Your task to perform on an android device: Go to notification settings Image 0: 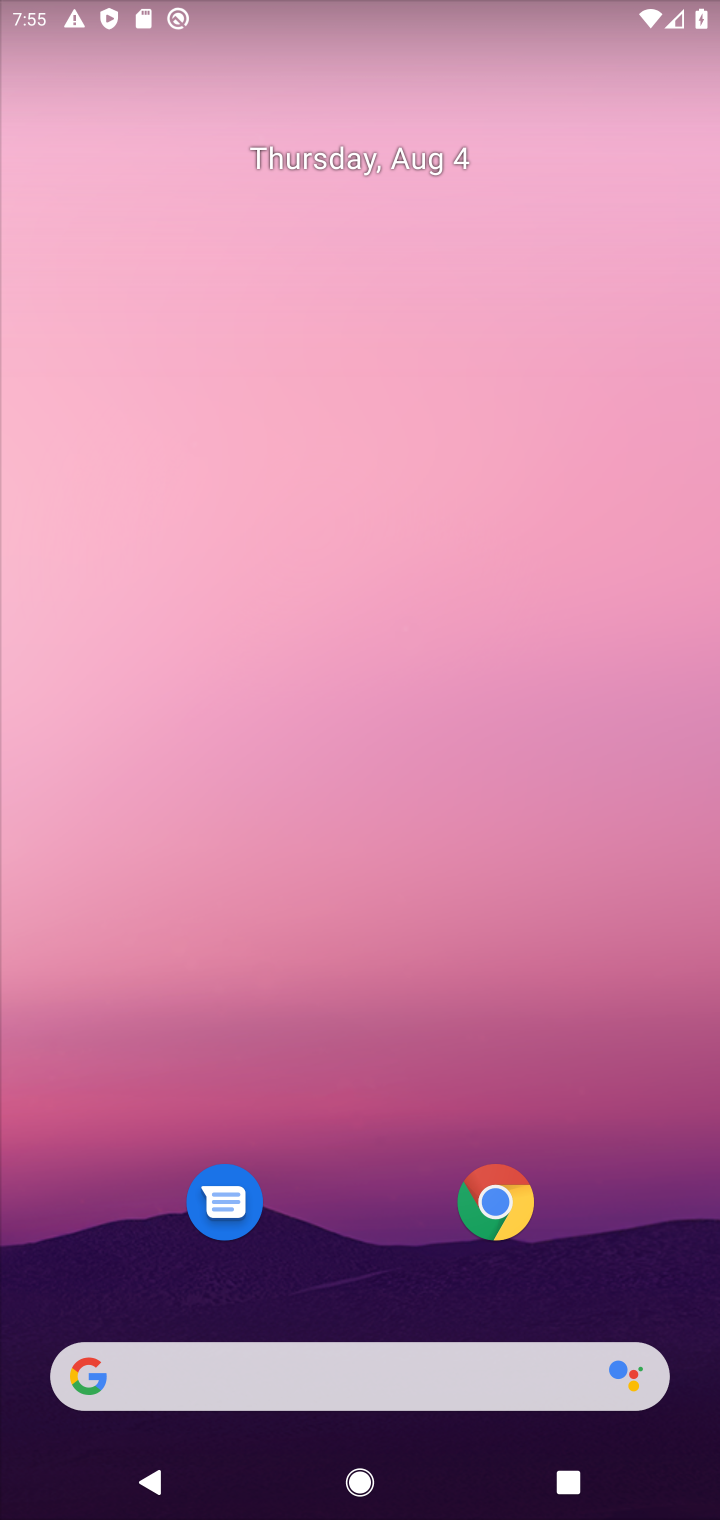
Step 0: drag from (327, 1281) to (335, 400)
Your task to perform on an android device: Go to notification settings Image 1: 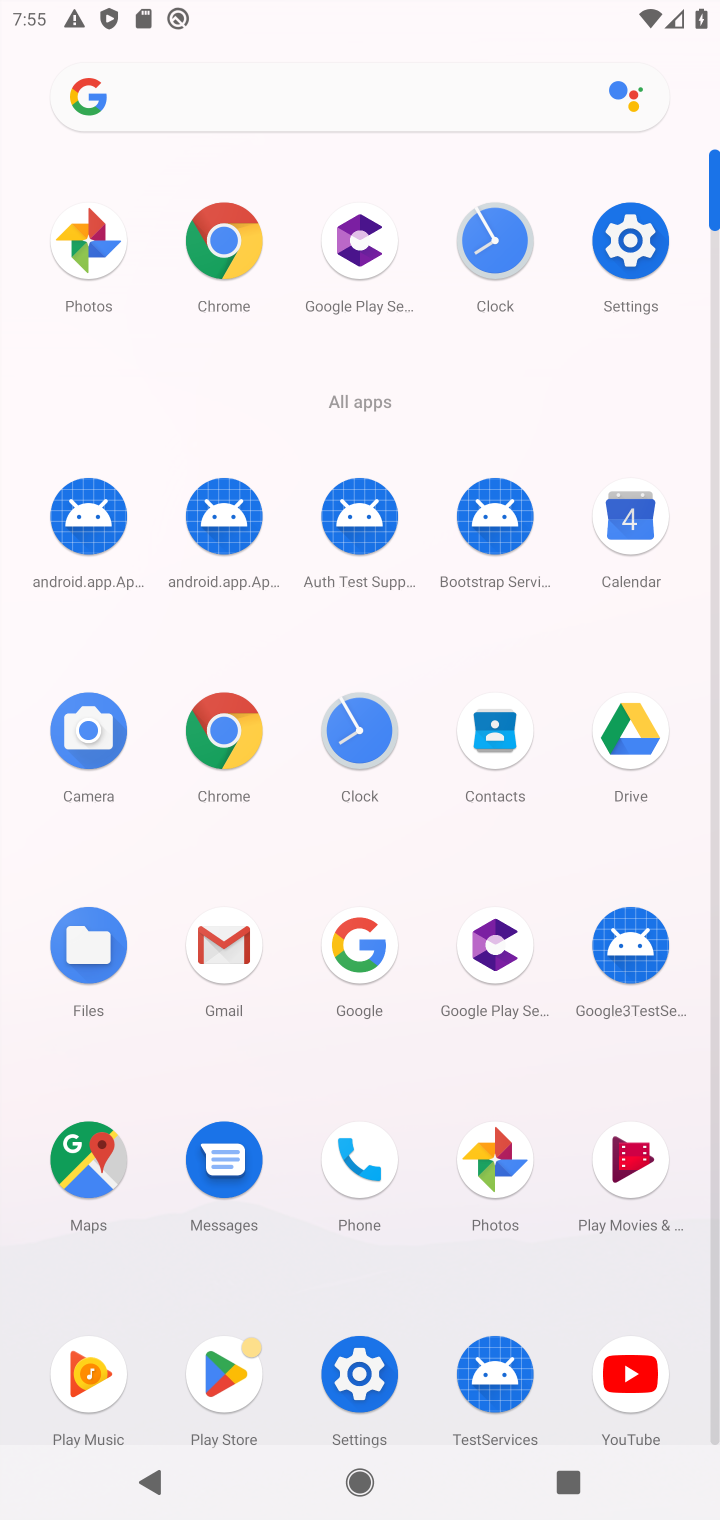
Step 1: click (616, 267)
Your task to perform on an android device: Go to notification settings Image 2: 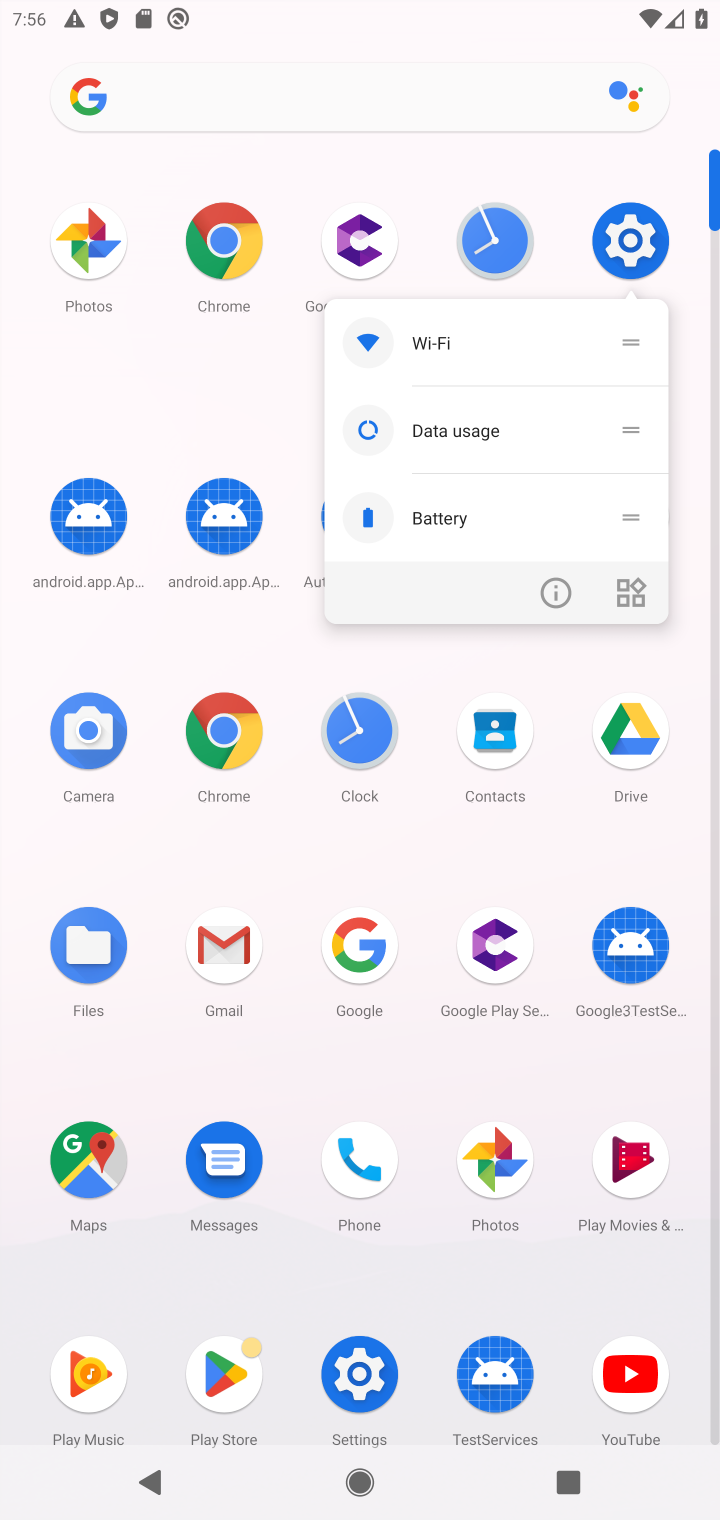
Step 2: click (633, 245)
Your task to perform on an android device: Go to notification settings Image 3: 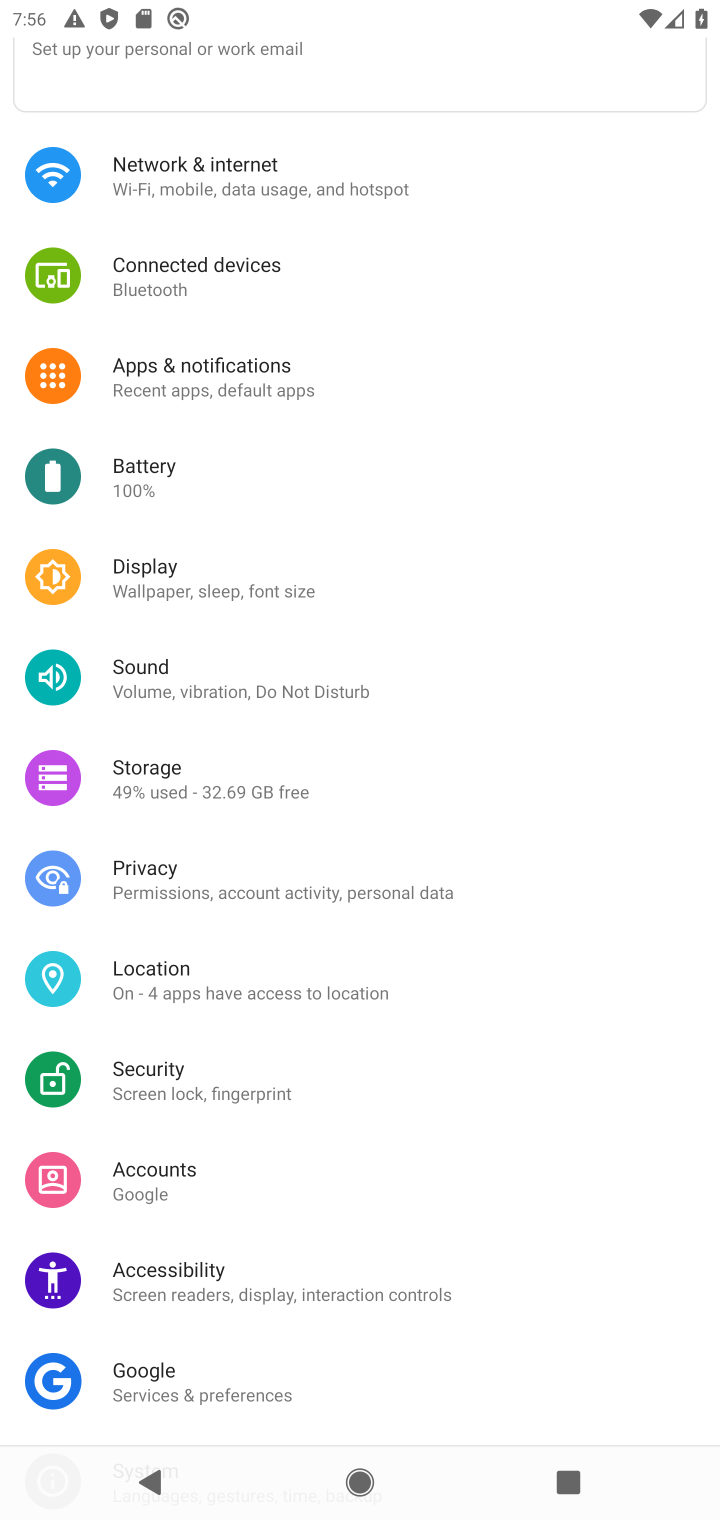
Step 3: click (277, 358)
Your task to perform on an android device: Go to notification settings Image 4: 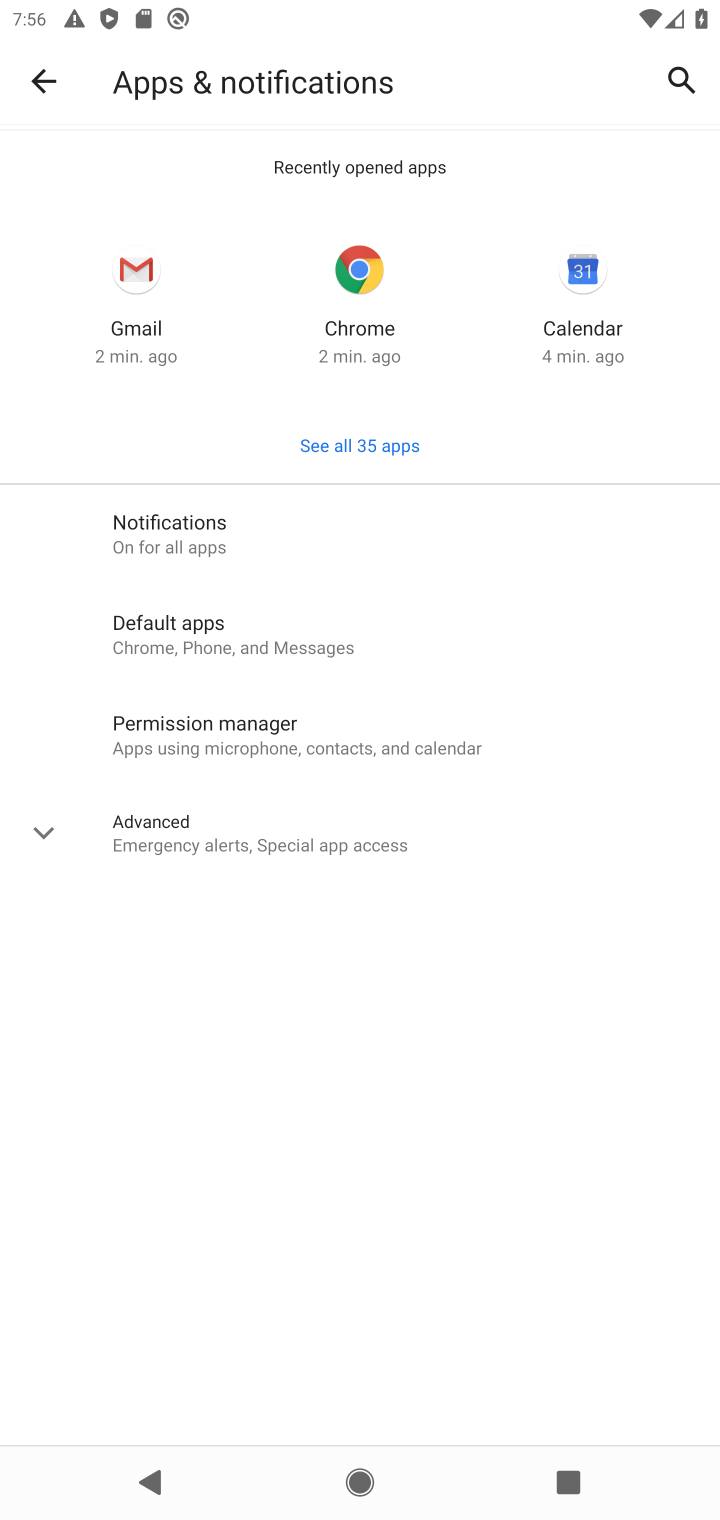
Step 4: click (253, 553)
Your task to perform on an android device: Go to notification settings Image 5: 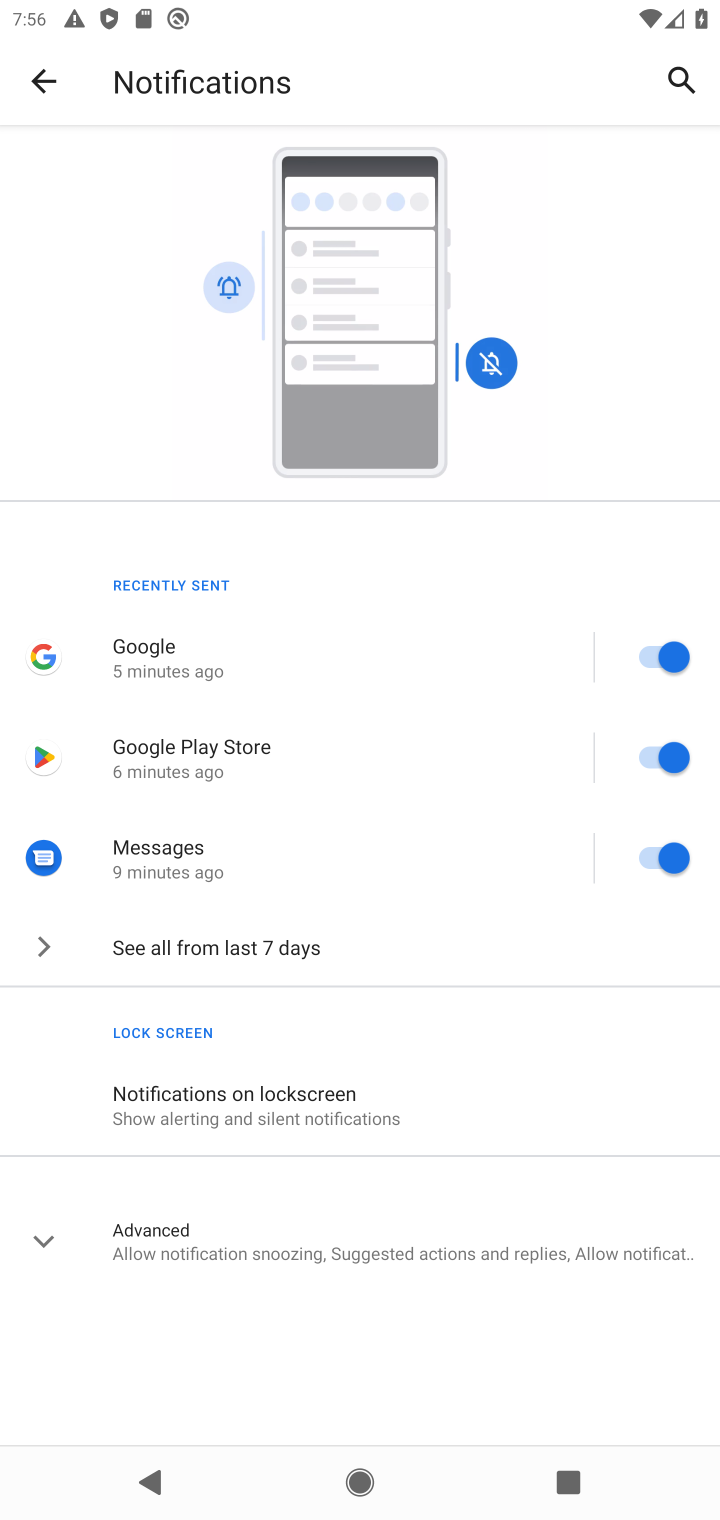
Step 5: task complete